Your task to perform on an android device: Go to ESPN.com Image 0: 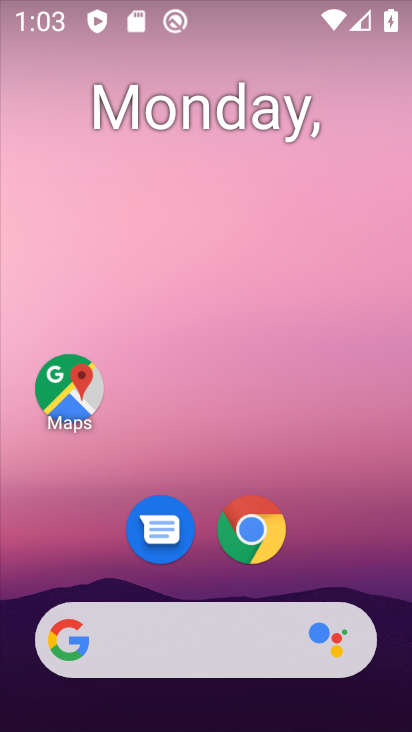
Step 0: drag from (328, 540) to (378, 22)
Your task to perform on an android device: Go to ESPN.com Image 1: 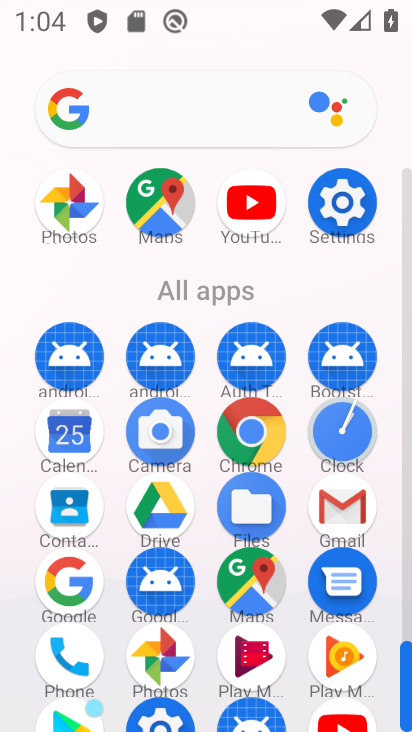
Step 1: click (242, 425)
Your task to perform on an android device: Go to ESPN.com Image 2: 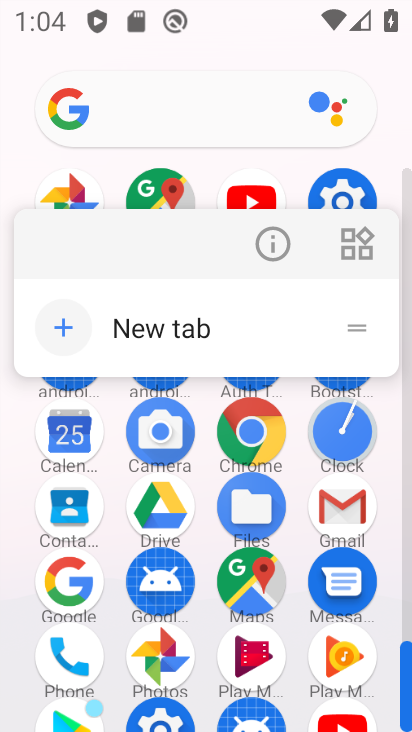
Step 2: click (243, 425)
Your task to perform on an android device: Go to ESPN.com Image 3: 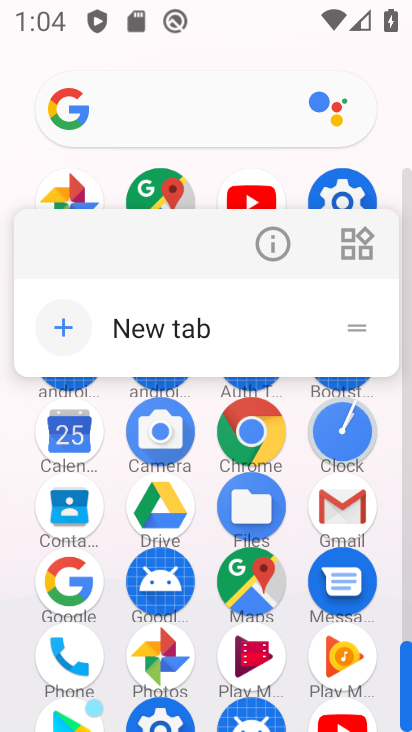
Step 3: click (236, 423)
Your task to perform on an android device: Go to ESPN.com Image 4: 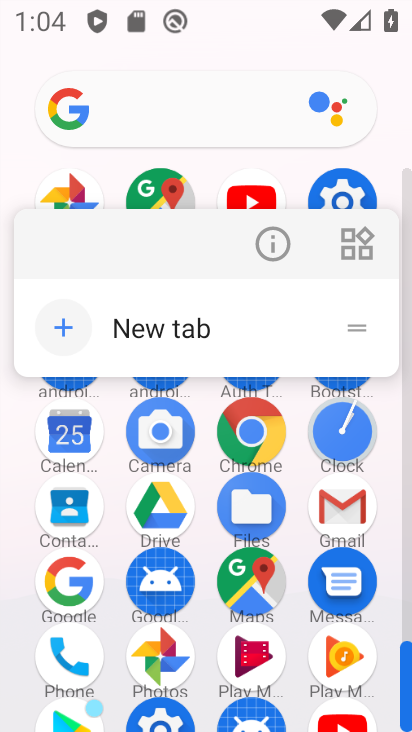
Step 4: click (252, 430)
Your task to perform on an android device: Go to ESPN.com Image 5: 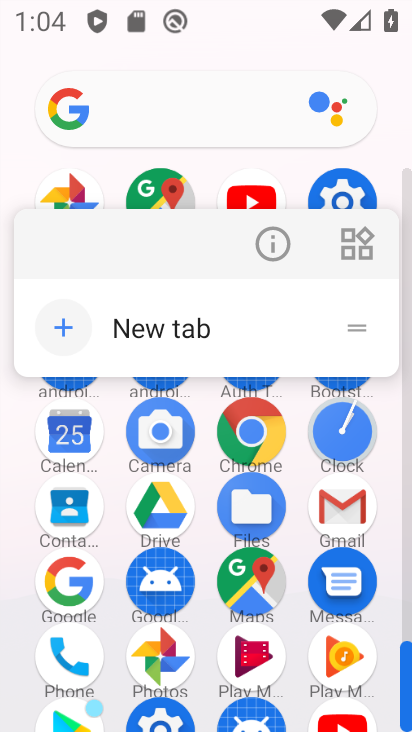
Step 5: click (252, 431)
Your task to perform on an android device: Go to ESPN.com Image 6: 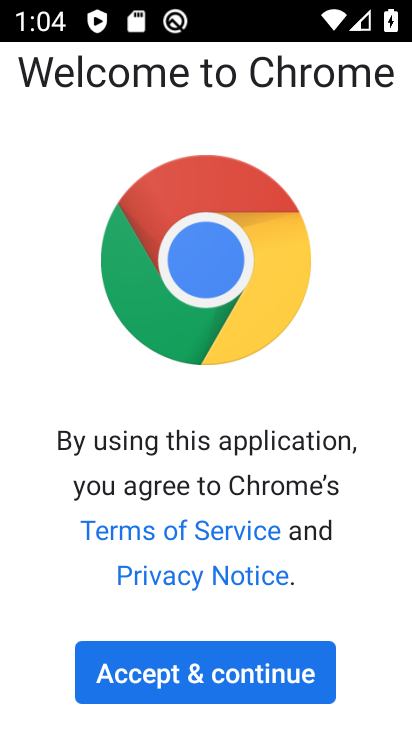
Step 6: click (251, 658)
Your task to perform on an android device: Go to ESPN.com Image 7: 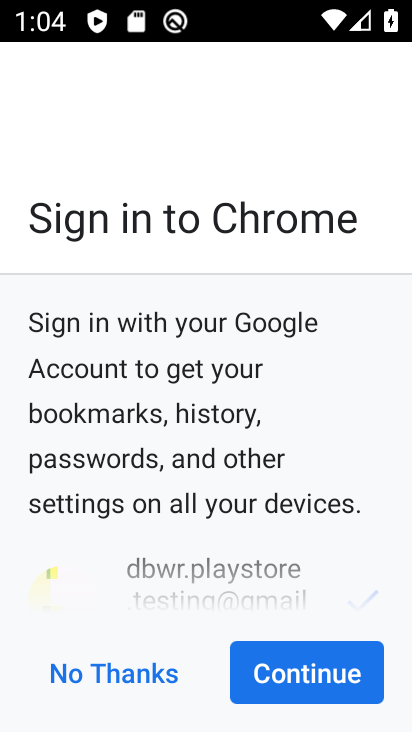
Step 7: click (138, 681)
Your task to perform on an android device: Go to ESPN.com Image 8: 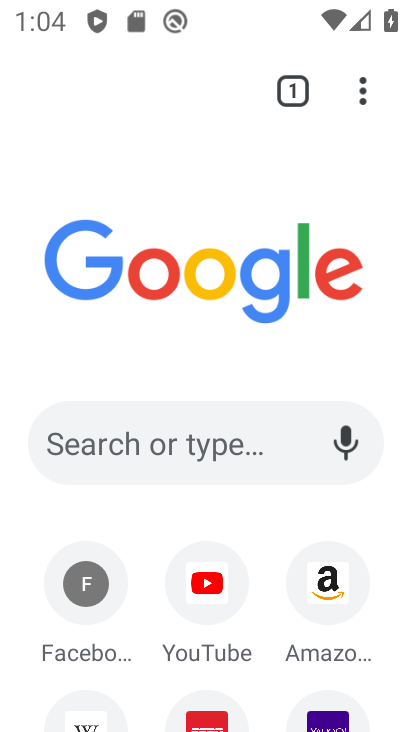
Step 8: drag from (402, 576) to (393, 38)
Your task to perform on an android device: Go to ESPN.com Image 9: 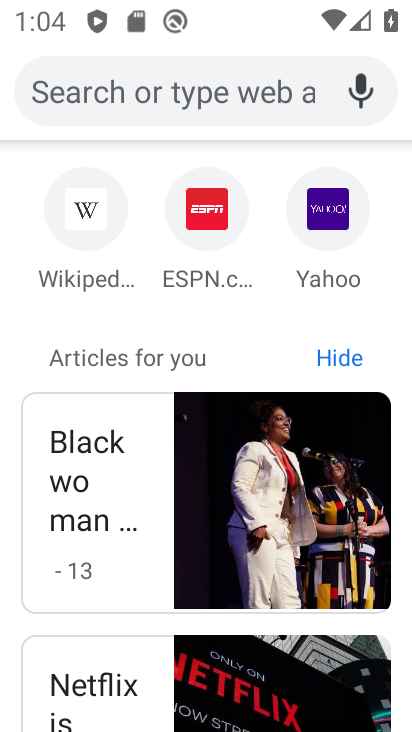
Step 9: click (213, 220)
Your task to perform on an android device: Go to ESPN.com Image 10: 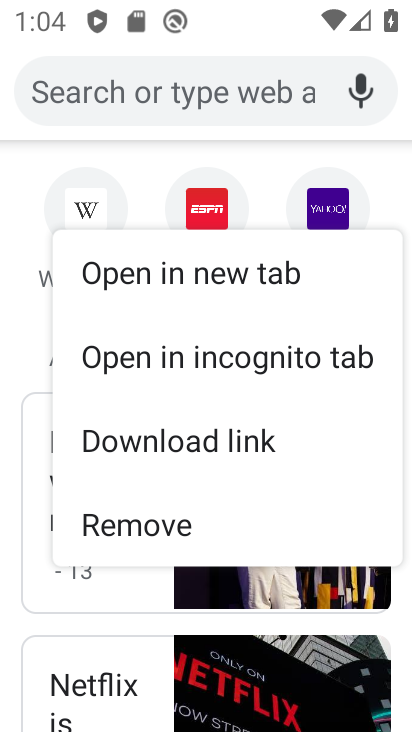
Step 10: click (212, 238)
Your task to perform on an android device: Go to ESPN.com Image 11: 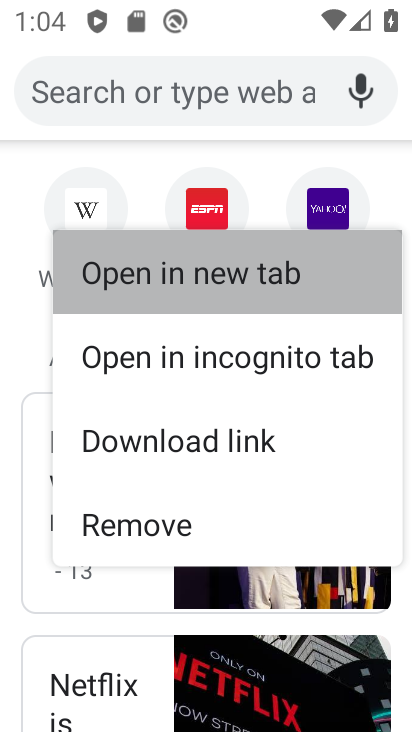
Step 11: click (185, 206)
Your task to perform on an android device: Go to ESPN.com Image 12: 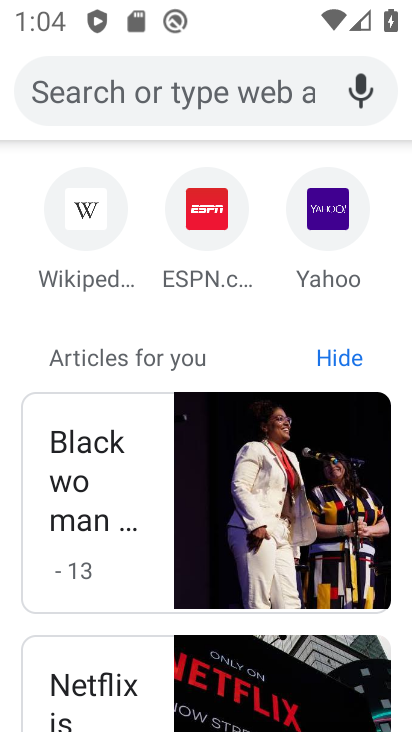
Step 12: click (195, 209)
Your task to perform on an android device: Go to ESPN.com Image 13: 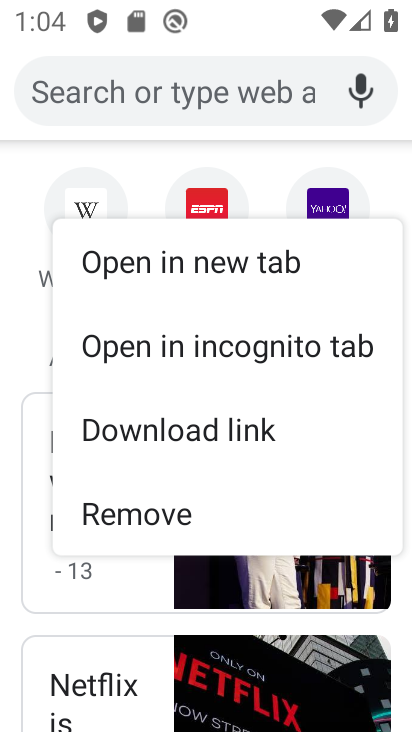
Step 13: click (195, 208)
Your task to perform on an android device: Go to ESPN.com Image 14: 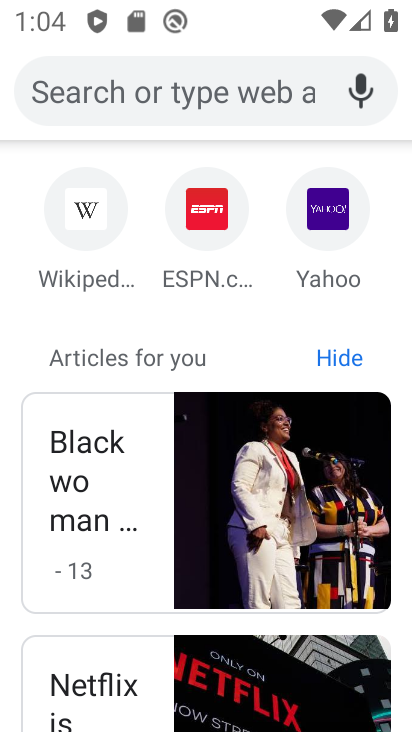
Step 14: click (195, 210)
Your task to perform on an android device: Go to ESPN.com Image 15: 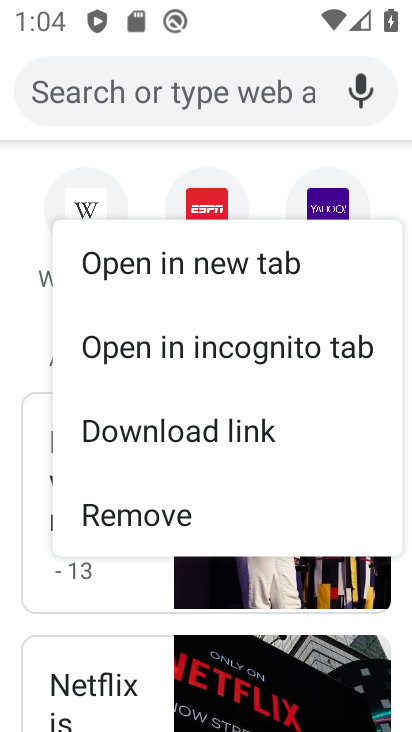
Step 15: click (195, 210)
Your task to perform on an android device: Go to ESPN.com Image 16: 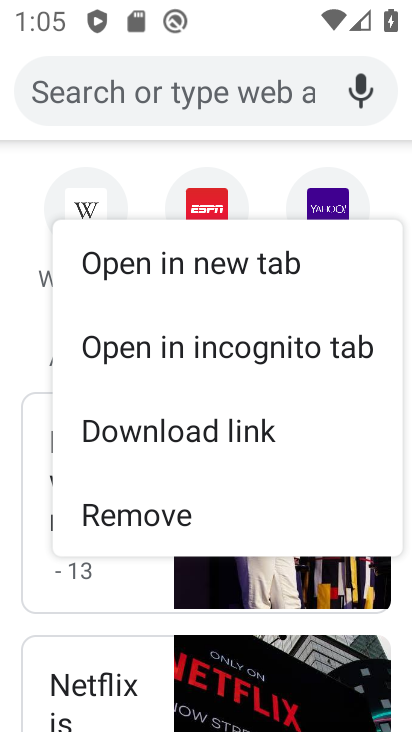
Step 16: click (195, 209)
Your task to perform on an android device: Go to ESPN.com Image 17: 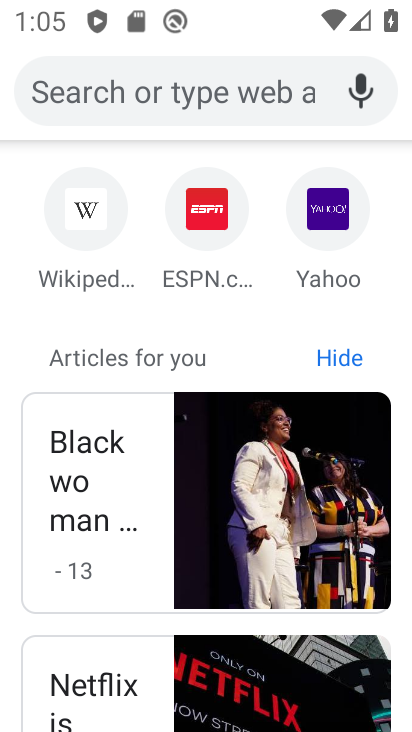
Step 17: click (195, 209)
Your task to perform on an android device: Go to ESPN.com Image 18: 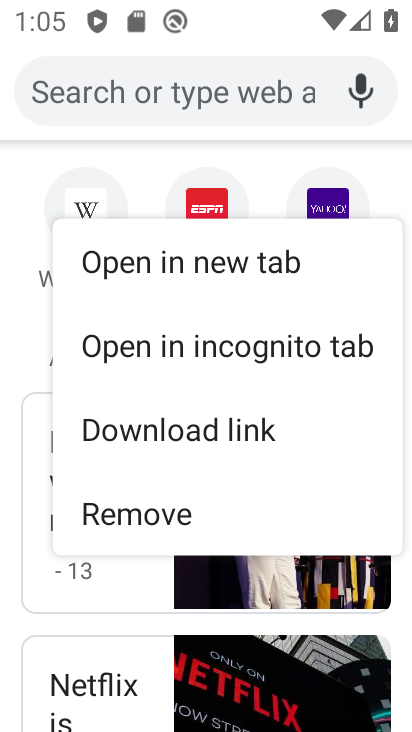
Step 18: click (195, 208)
Your task to perform on an android device: Go to ESPN.com Image 19: 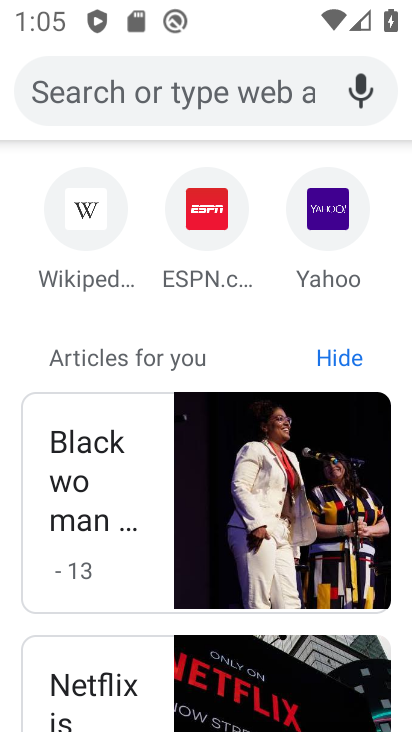
Step 19: click (214, 212)
Your task to perform on an android device: Go to ESPN.com Image 20: 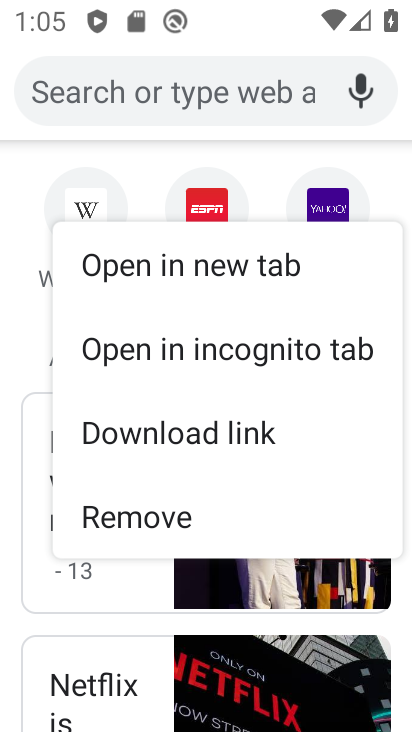
Step 20: click (207, 196)
Your task to perform on an android device: Go to ESPN.com Image 21: 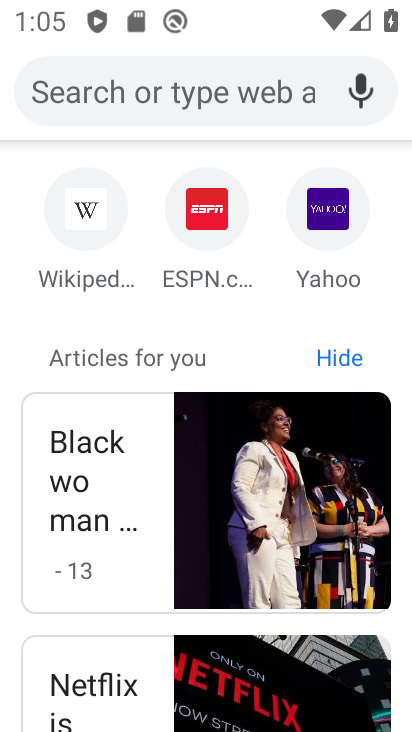
Step 21: click (204, 282)
Your task to perform on an android device: Go to ESPN.com Image 22: 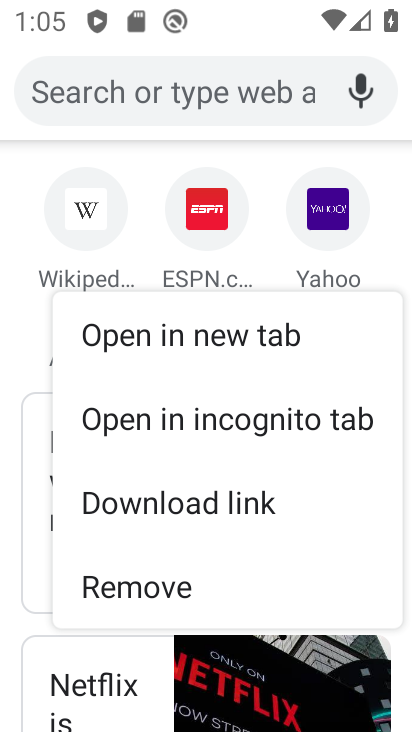
Step 22: click (193, 256)
Your task to perform on an android device: Go to ESPN.com Image 23: 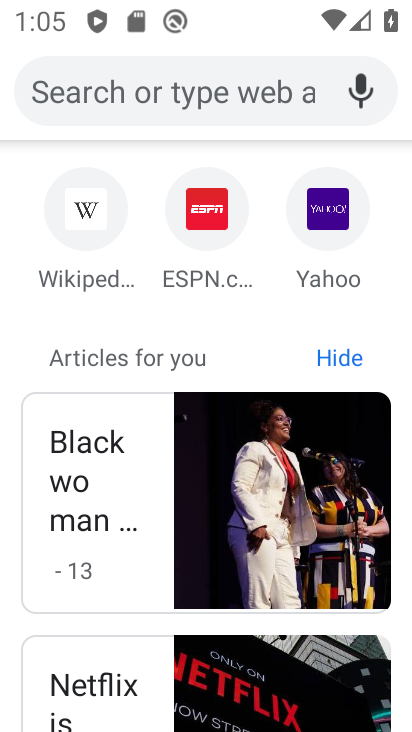
Step 23: click (187, 215)
Your task to perform on an android device: Go to ESPN.com Image 24: 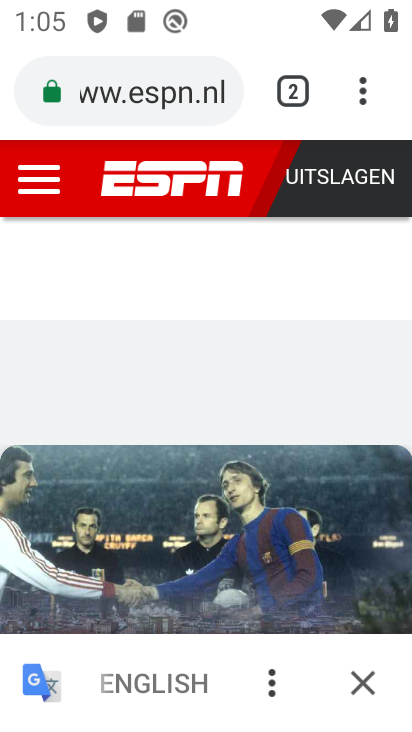
Step 24: task complete